Your task to perform on an android device: change alarm snooze length Image 0: 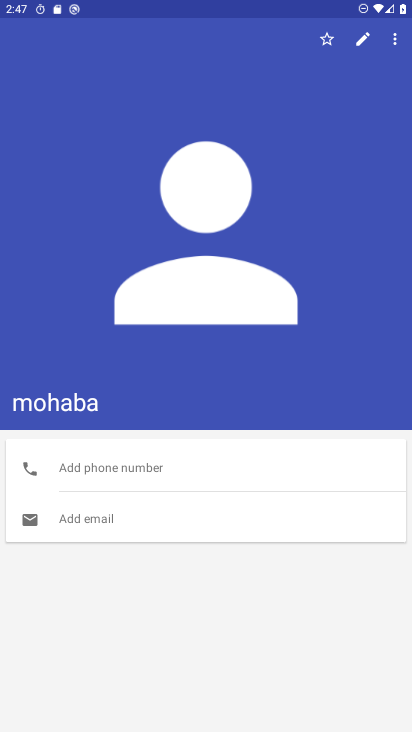
Step 0: press home button
Your task to perform on an android device: change alarm snooze length Image 1: 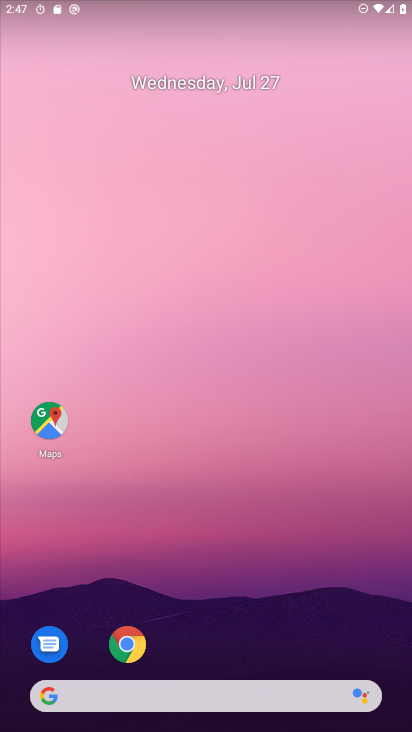
Step 1: drag from (221, 637) to (213, 170)
Your task to perform on an android device: change alarm snooze length Image 2: 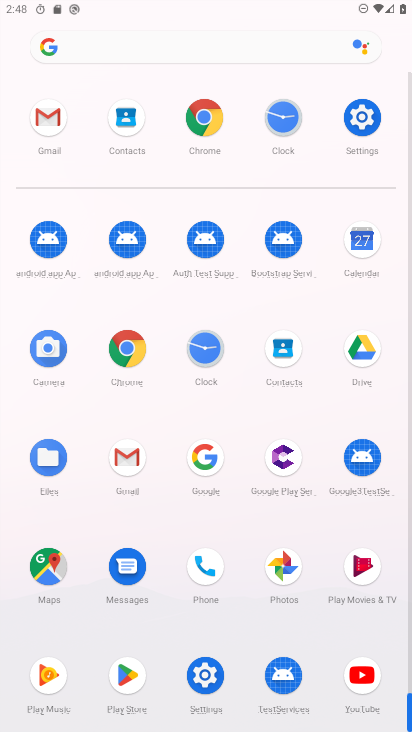
Step 2: click (208, 361)
Your task to perform on an android device: change alarm snooze length Image 3: 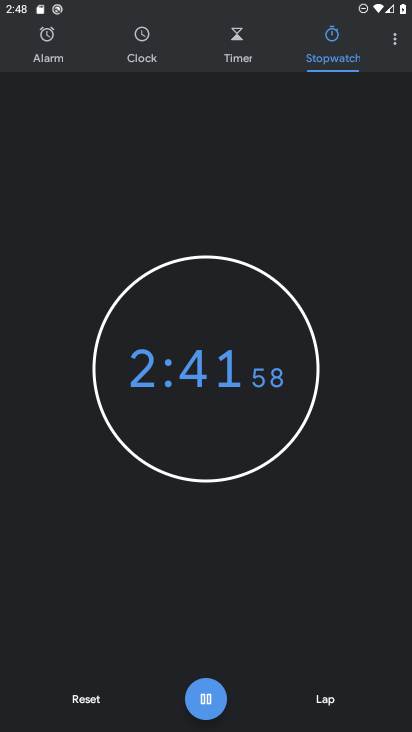
Step 3: click (87, 706)
Your task to perform on an android device: change alarm snooze length Image 4: 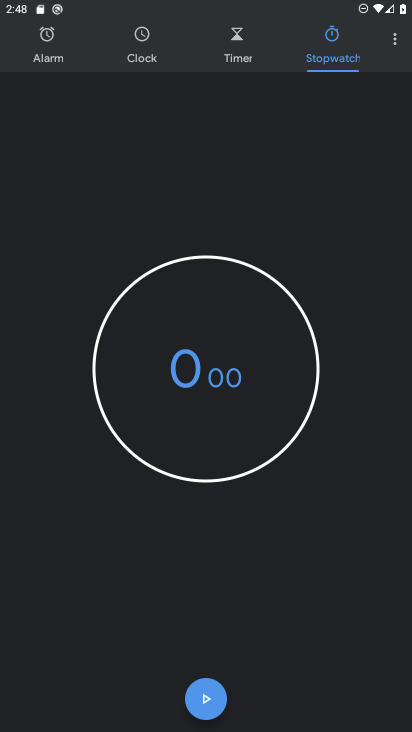
Step 4: click (398, 40)
Your task to perform on an android device: change alarm snooze length Image 5: 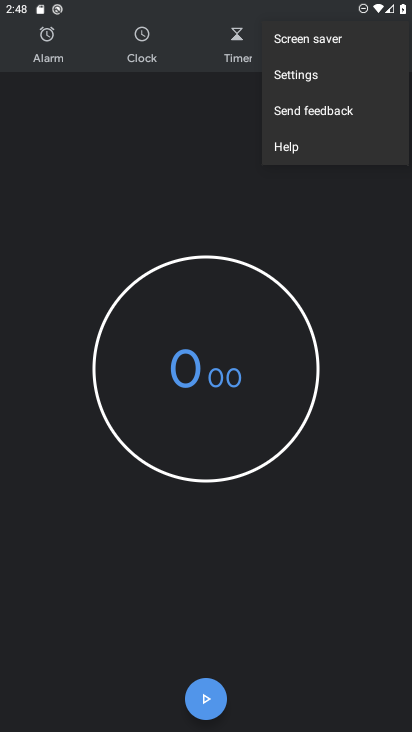
Step 5: click (306, 78)
Your task to perform on an android device: change alarm snooze length Image 6: 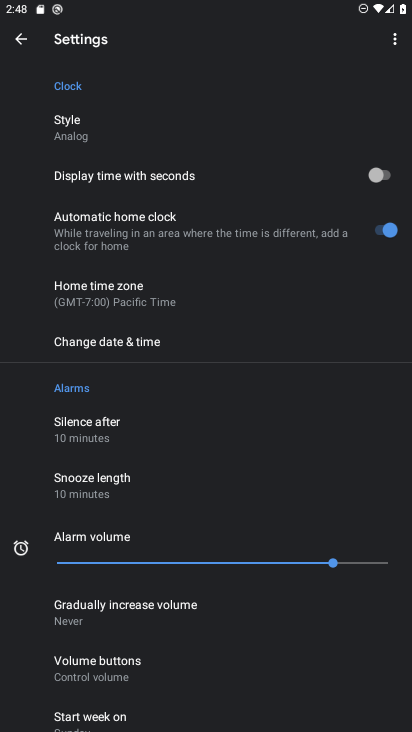
Step 6: click (103, 500)
Your task to perform on an android device: change alarm snooze length Image 7: 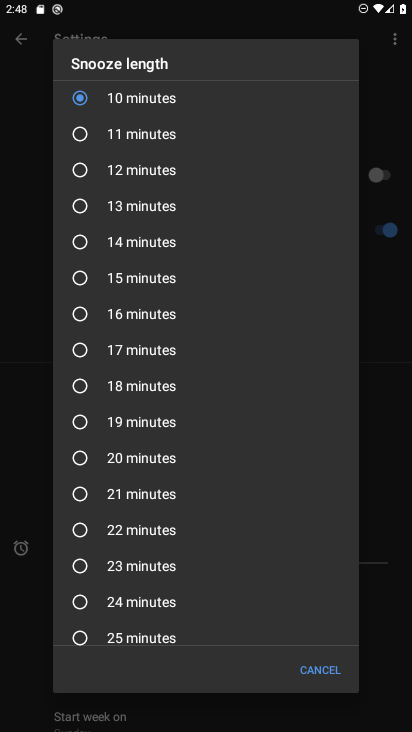
Step 7: click (75, 459)
Your task to perform on an android device: change alarm snooze length Image 8: 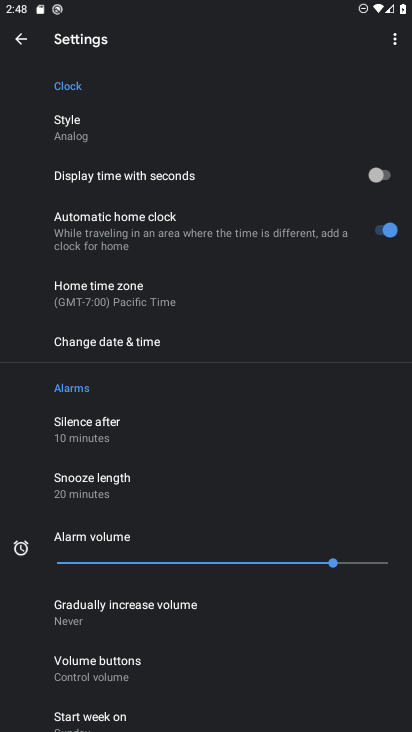
Step 8: task complete